Your task to perform on an android device: change timer sound Image 0: 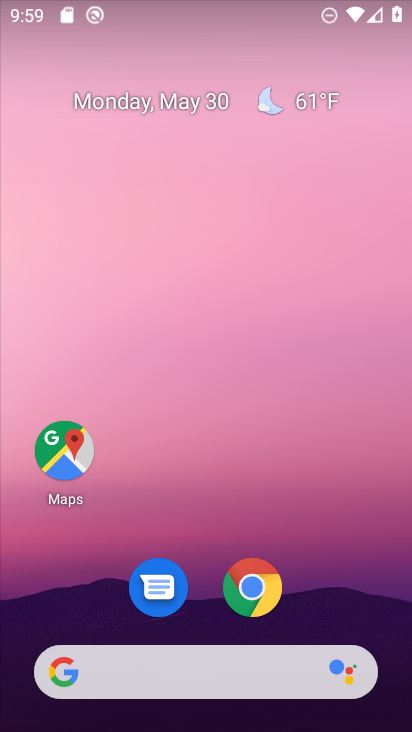
Step 0: drag from (204, 627) to (103, 17)
Your task to perform on an android device: change timer sound Image 1: 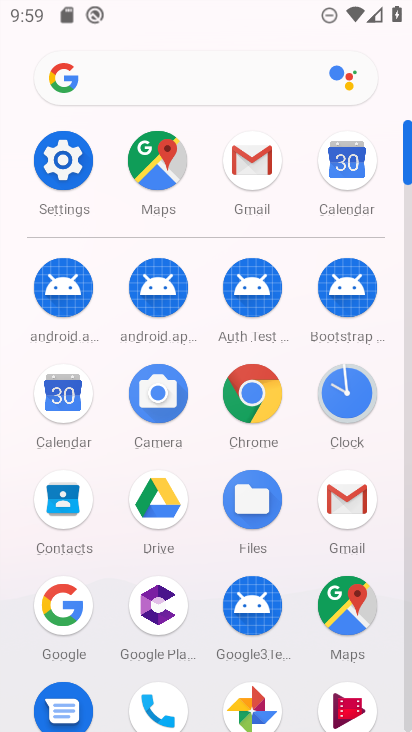
Step 1: click (352, 403)
Your task to perform on an android device: change timer sound Image 2: 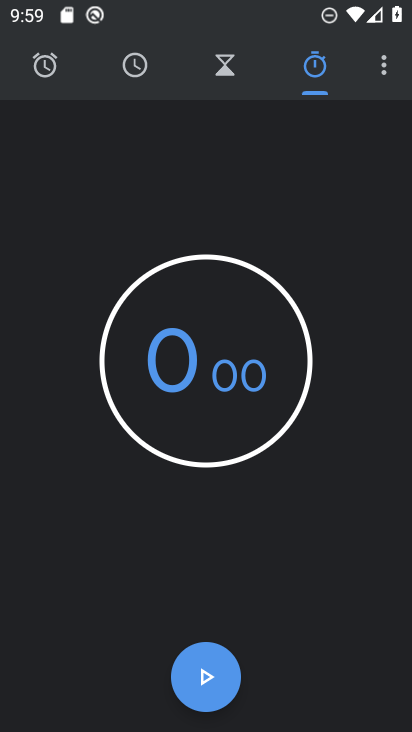
Step 2: click (374, 71)
Your task to perform on an android device: change timer sound Image 3: 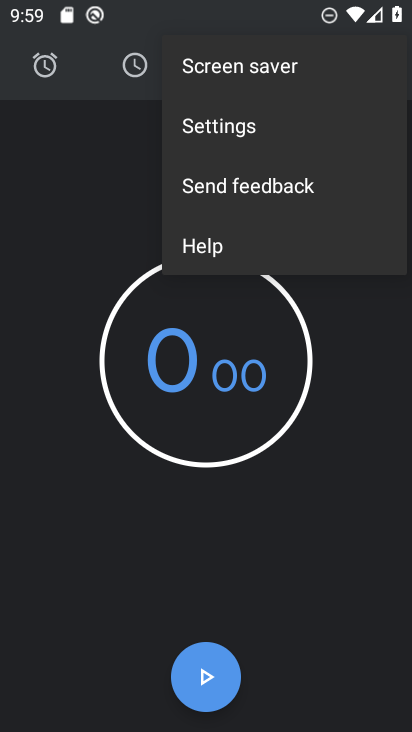
Step 3: click (233, 123)
Your task to perform on an android device: change timer sound Image 4: 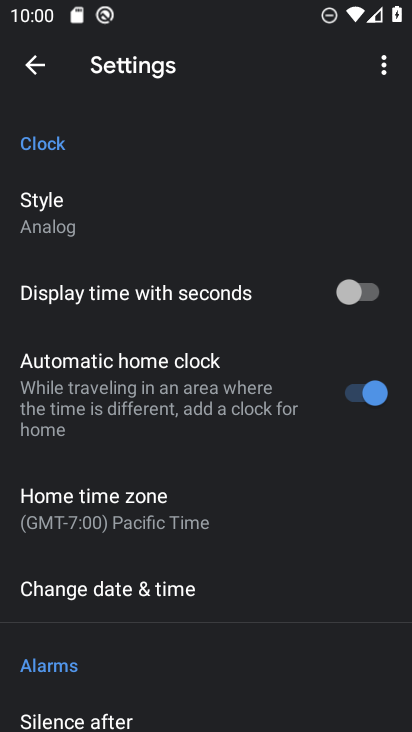
Step 4: drag from (205, 558) to (176, 111)
Your task to perform on an android device: change timer sound Image 5: 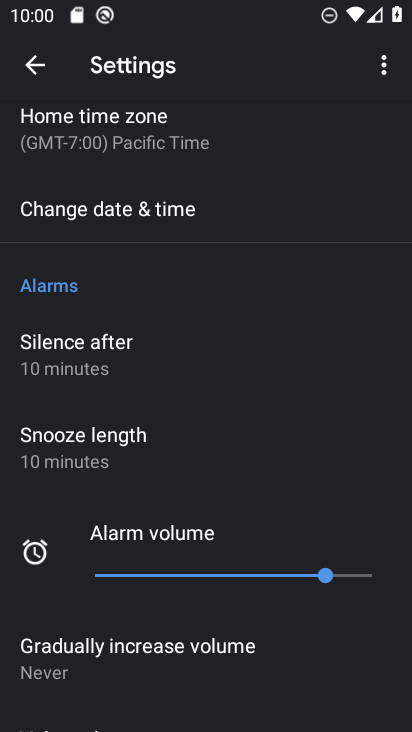
Step 5: drag from (215, 548) to (183, 174)
Your task to perform on an android device: change timer sound Image 6: 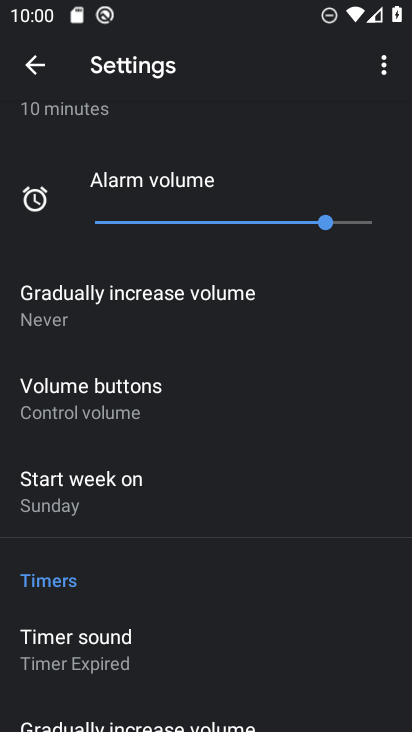
Step 6: click (101, 639)
Your task to perform on an android device: change timer sound Image 7: 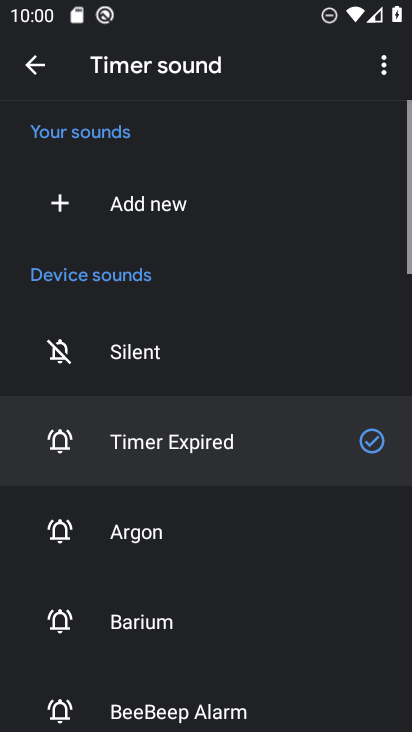
Step 7: click (152, 546)
Your task to perform on an android device: change timer sound Image 8: 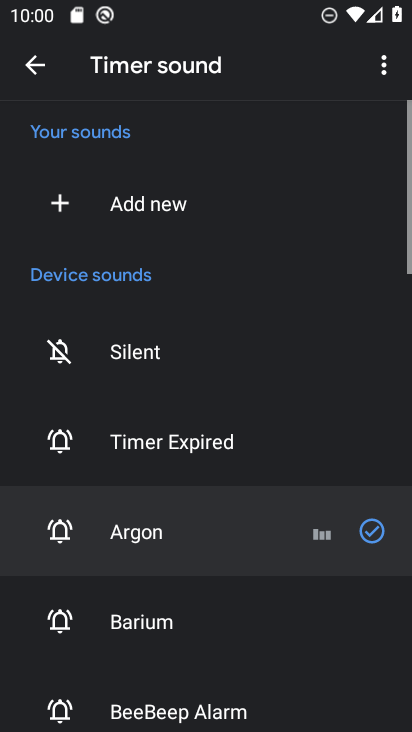
Step 8: task complete